Your task to perform on an android device: see tabs open on other devices in the chrome app Image 0: 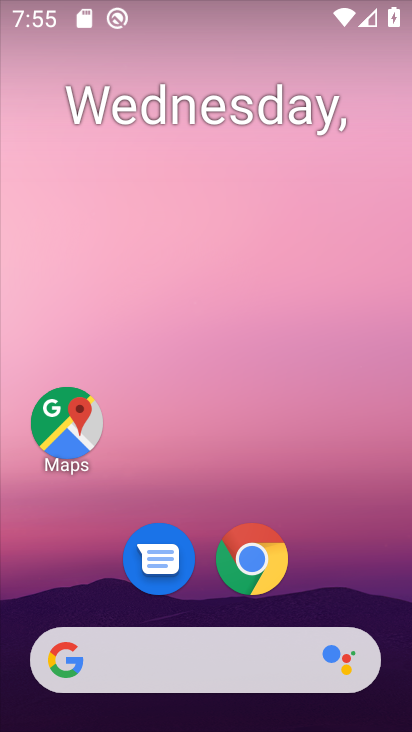
Step 0: drag from (379, 524) to (381, 140)
Your task to perform on an android device: see tabs open on other devices in the chrome app Image 1: 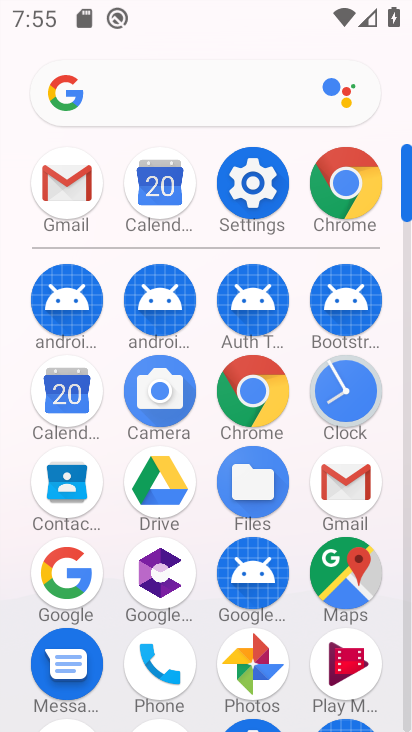
Step 1: click (360, 177)
Your task to perform on an android device: see tabs open on other devices in the chrome app Image 2: 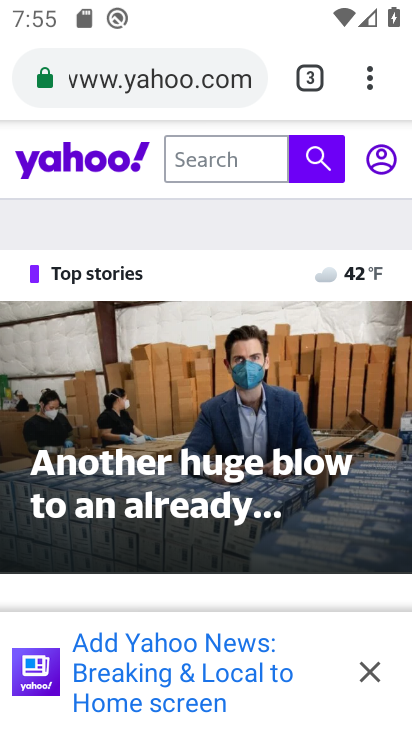
Step 2: click (306, 71)
Your task to perform on an android device: see tabs open on other devices in the chrome app Image 3: 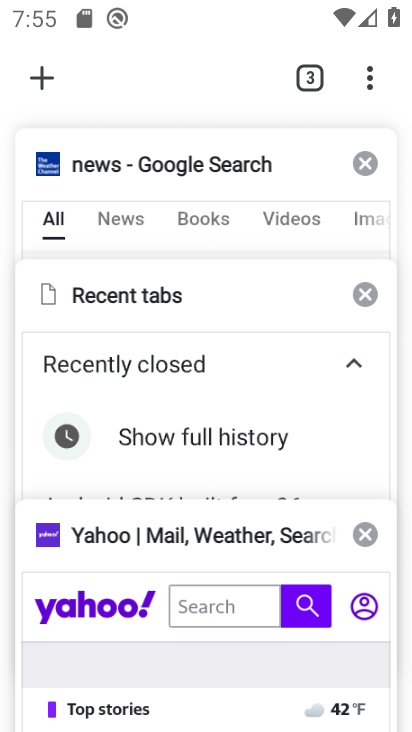
Step 3: task complete